Your task to perform on an android device: remove spam from my inbox in the gmail app Image 0: 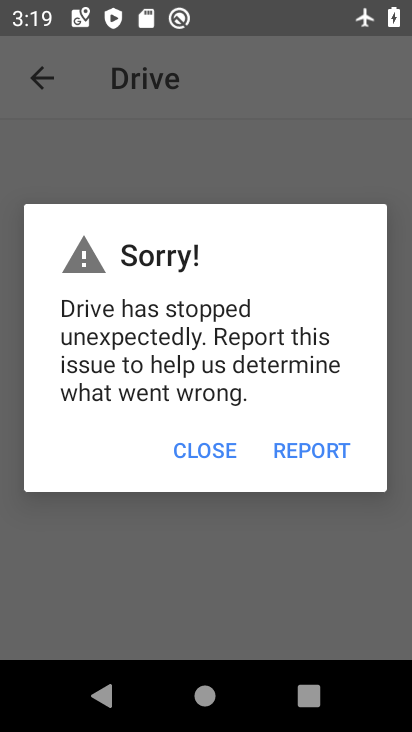
Step 0: press home button
Your task to perform on an android device: remove spam from my inbox in the gmail app Image 1: 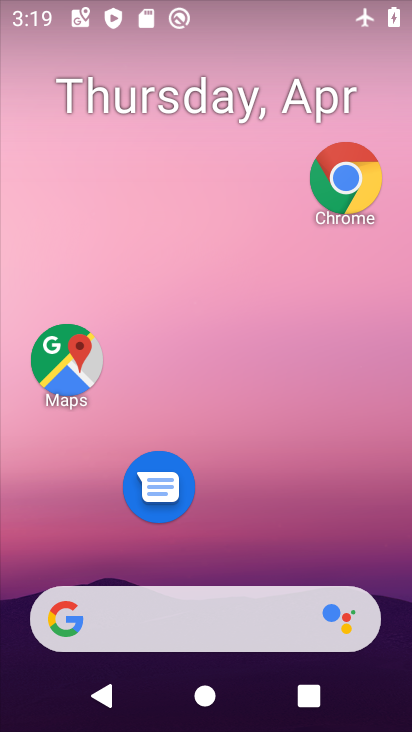
Step 1: drag from (118, 567) to (120, 439)
Your task to perform on an android device: remove spam from my inbox in the gmail app Image 2: 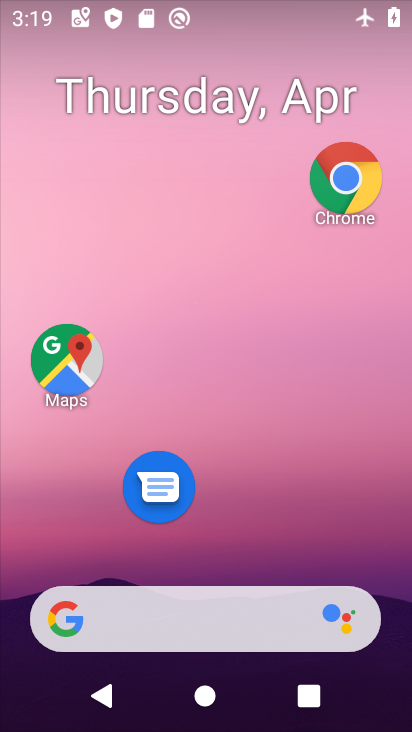
Step 2: drag from (263, 556) to (246, 440)
Your task to perform on an android device: remove spam from my inbox in the gmail app Image 3: 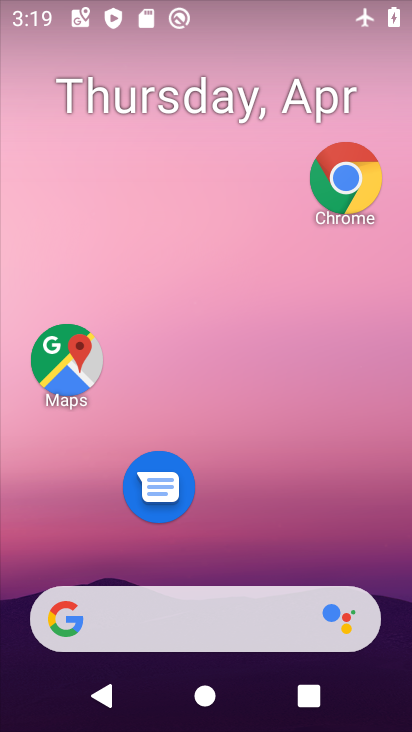
Step 3: drag from (261, 484) to (289, 48)
Your task to perform on an android device: remove spam from my inbox in the gmail app Image 4: 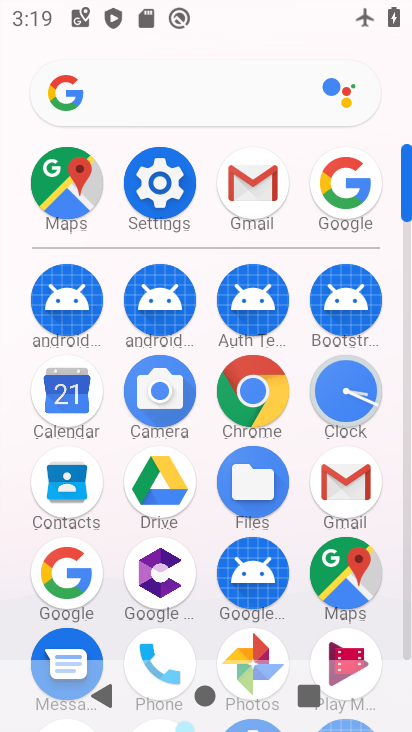
Step 4: click (361, 499)
Your task to perform on an android device: remove spam from my inbox in the gmail app Image 5: 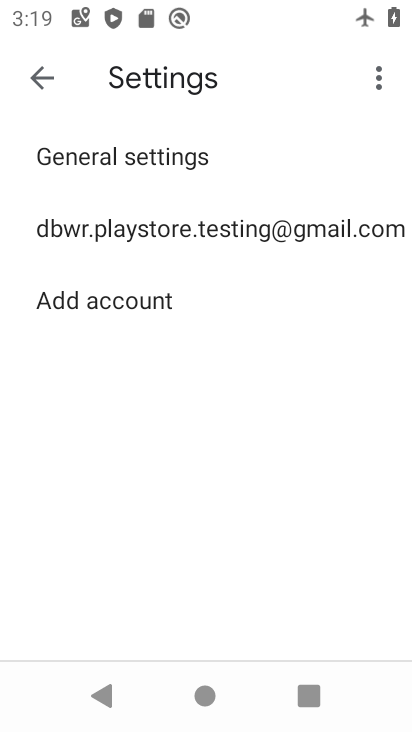
Step 5: click (48, 93)
Your task to perform on an android device: remove spam from my inbox in the gmail app Image 6: 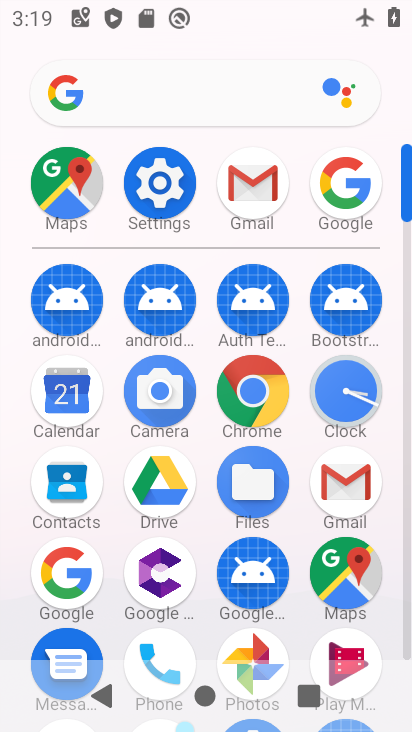
Step 6: click (410, 506)
Your task to perform on an android device: remove spam from my inbox in the gmail app Image 7: 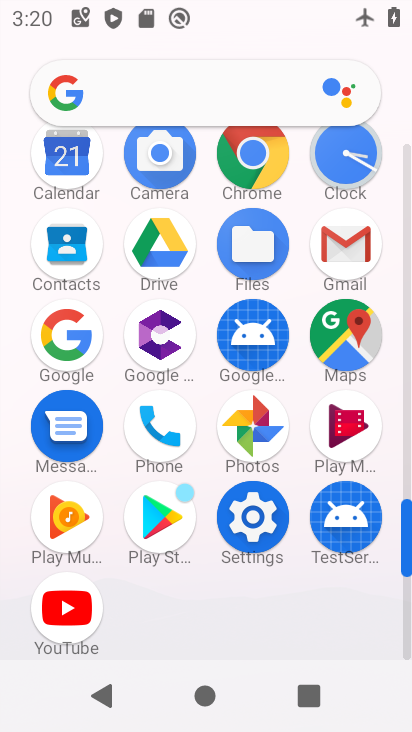
Step 7: click (350, 250)
Your task to perform on an android device: remove spam from my inbox in the gmail app Image 8: 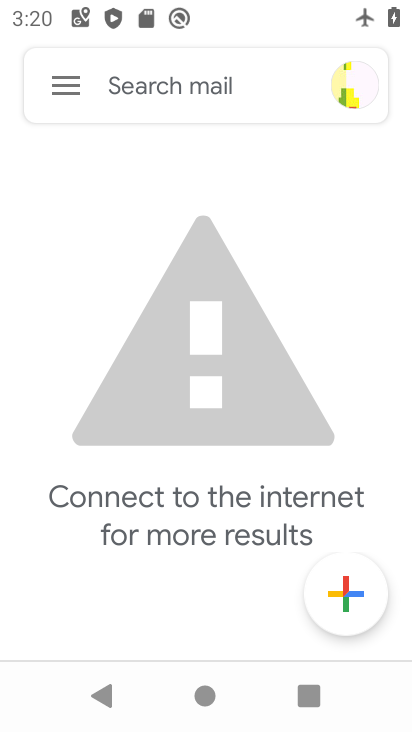
Step 8: click (76, 107)
Your task to perform on an android device: remove spam from my inbox in the gmail app Image 9: 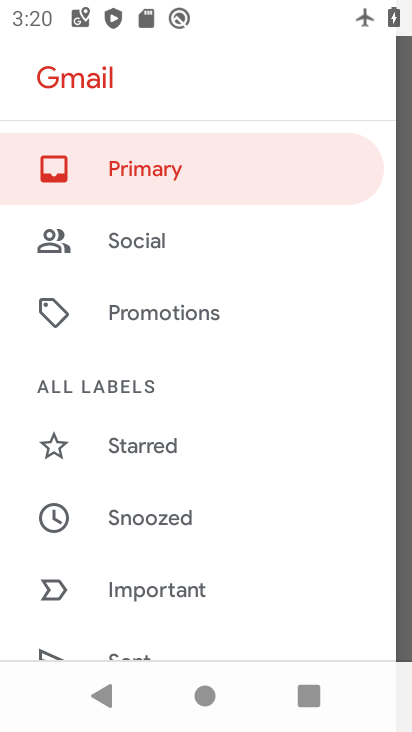
Step 9: task complete